Your task to perform on an android device: Open Yahoo.com Image 0: 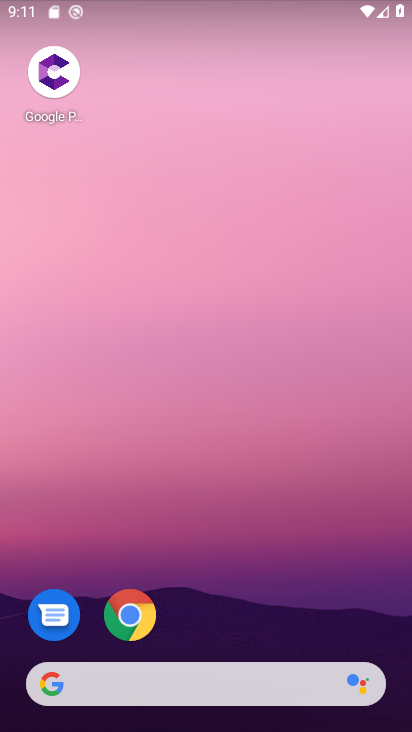
Step 0: click (132, 615)
Your task to perform on an android device: Open Yahoo.com Image 1: 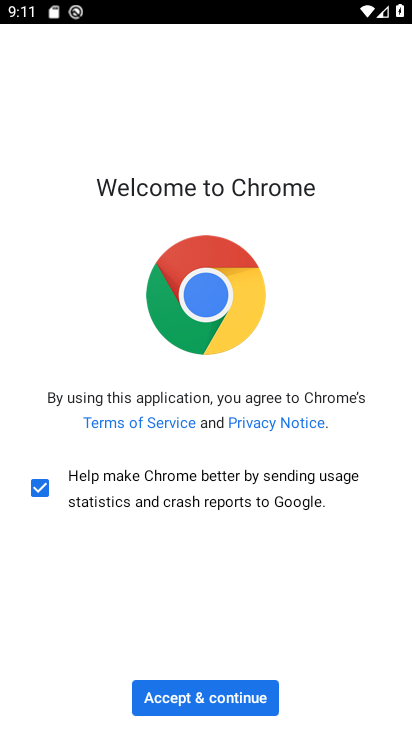
Step 1: click (184, 695)
Your task to perform on an android device: Open Yahoo.com Image 2: 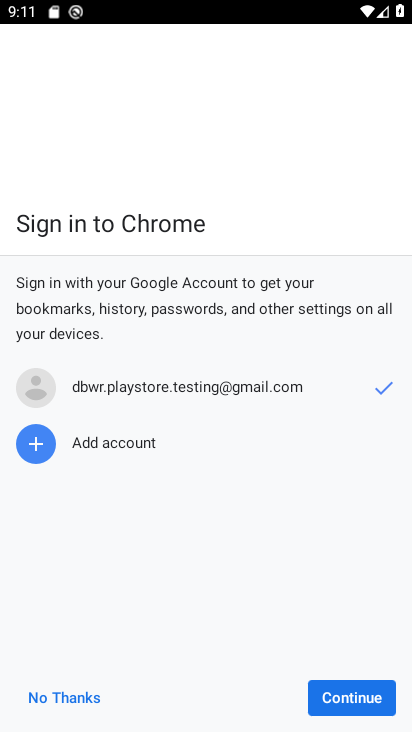
Step 2: click (347, 710)
Your task to perform on an android device: Open Yahoo.com Image 3: 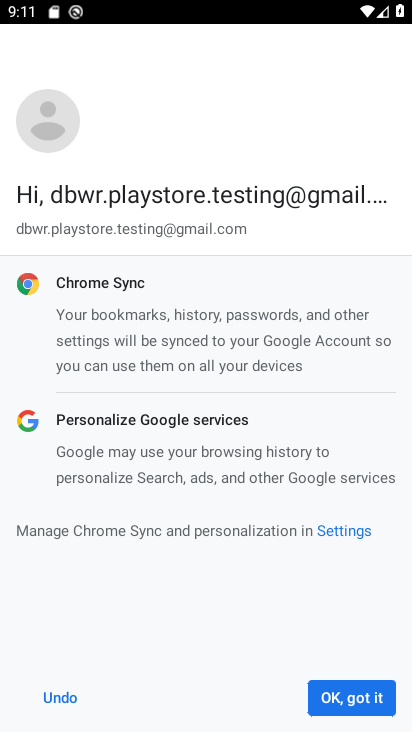
Step 3: click (348, 710)
Your task to perform on an android device: Open Yahoo.com Image 4: 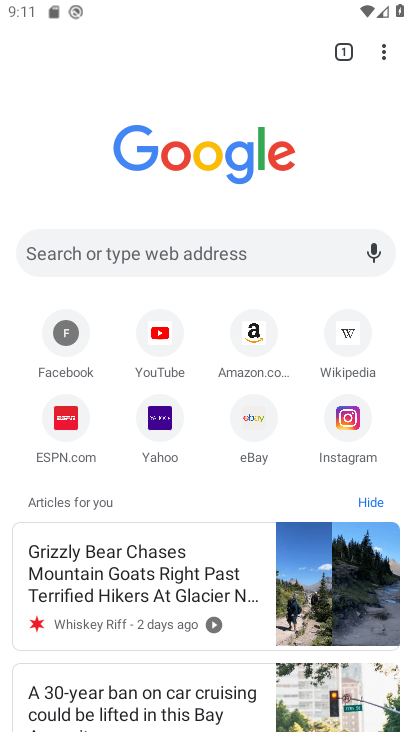
Step 4: click (160, 423)
Your task to perform on an android device: Open Yahoo.com Image 5: 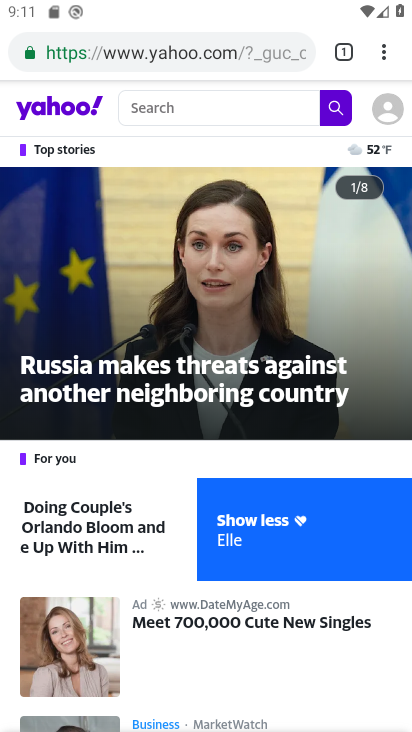
Step 5: task complete